Your task to perform on an android device: delete browsing data in the chrome app Image 0: 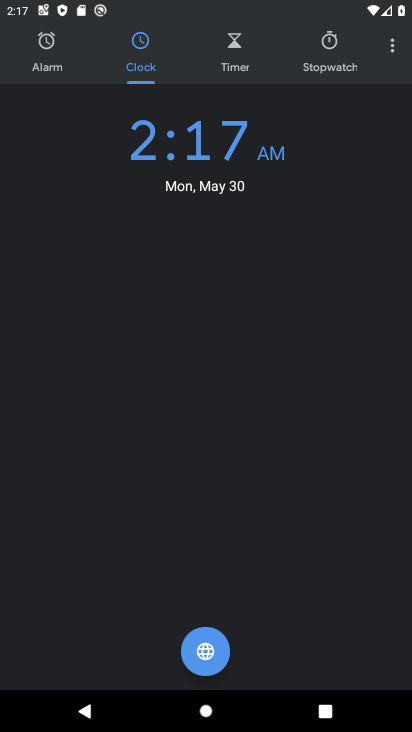
Step 0: press home button
Your task to perform on an android device: delete browsing data in the chrome app Image 1: 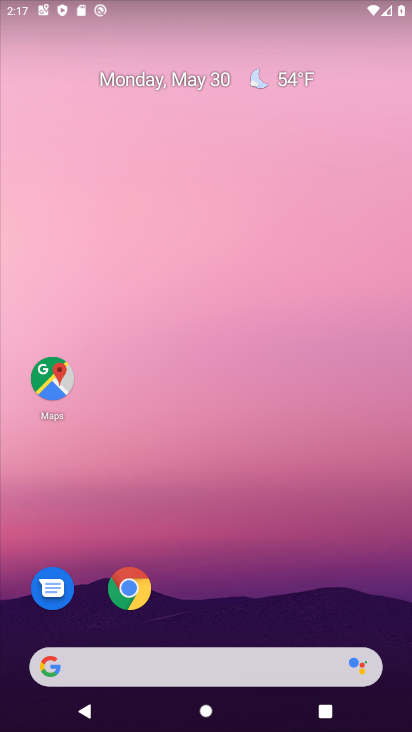
Step 1: click (130, 588)
Your task to perform on an android device: delete browsing data in the chrome app Image 2: 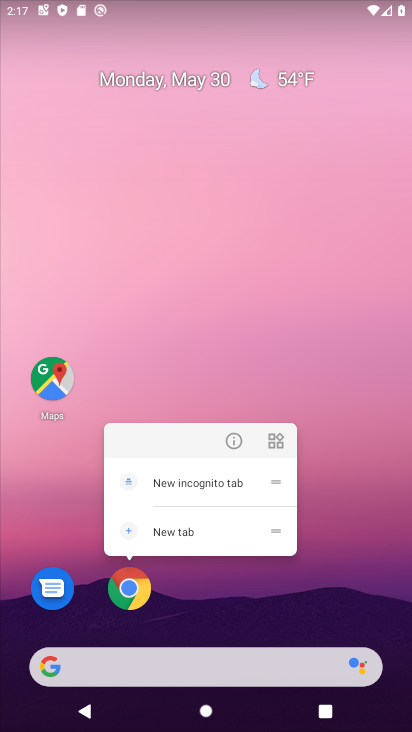
Step 2: click (130, 588)
Your task to perform on an android device: delete browsing data in the chrome app Image 3: 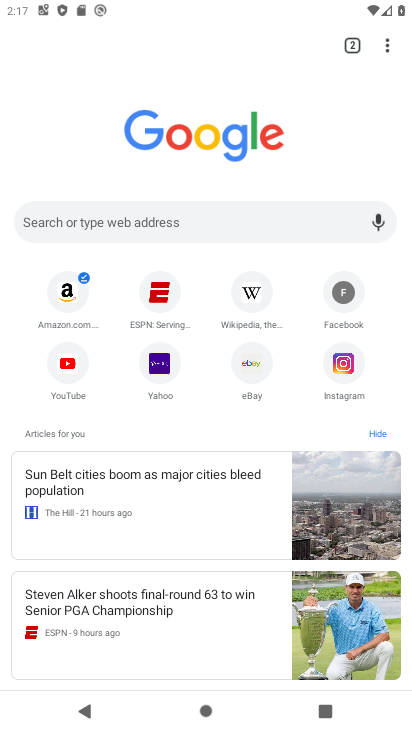
Step 3: click (380, 44)
Your task to perform on an android device: delete browsing data in the chrome app Image 4: 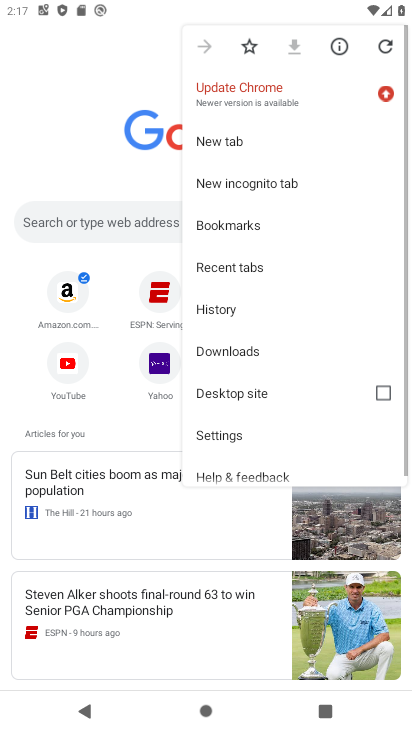
Step 4: drag from (295, 433) to (287, 263)
Your task to perform on an android device: delete browsing data in the chrome app Image 5: 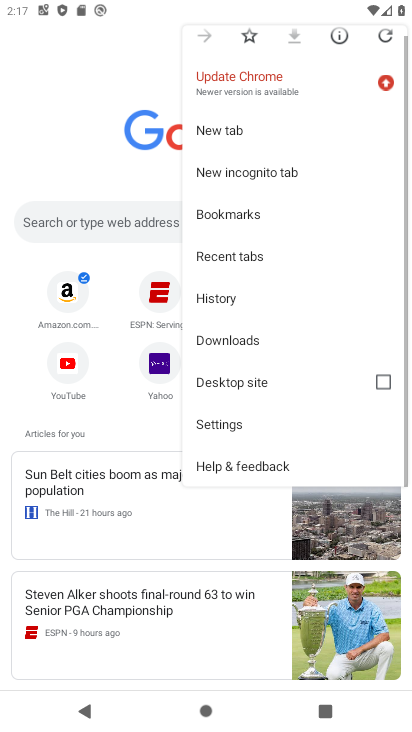
Step 5: click (228, 420)
Your task to perform on an android device: delete browsing data in the chrome app Image 6: 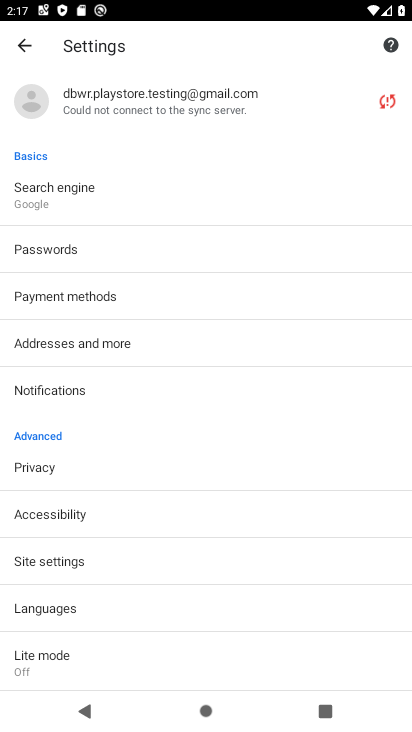
Step 6: click (74, 472)
Your task to perform on an android device: delete browsing data in the chrome app Image 7: 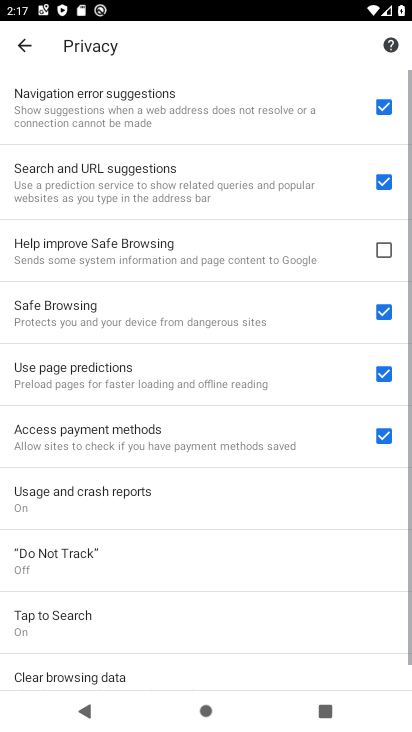
Step 7: drag from (187, 546) to (217, 185)
Your task to perform on an android device: delete browsing data in the chrome app Image 8: 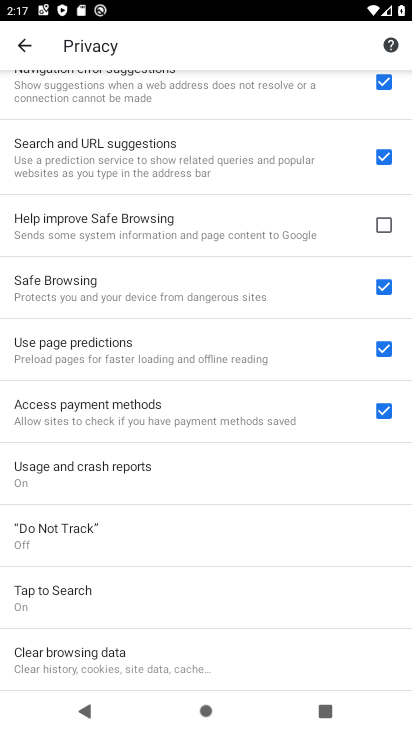
Step 8: click (100, 658)
Your task to perform on an android device: delete browsing data in the chrome app Image 9: 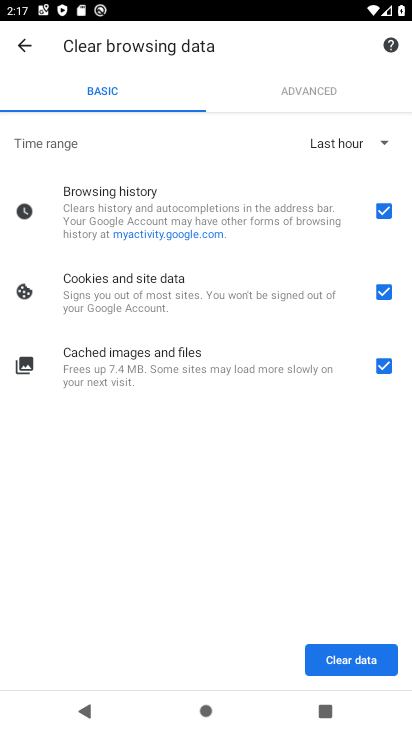
Step 9: click (382, 289)
Your task to perform on an android device: delete browsing data in the chrome app Image 10: 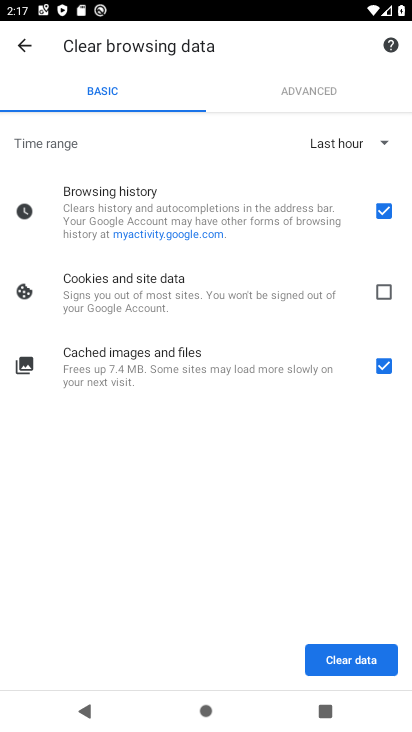
Step 10: click (383, 366)
Your task to perform on an android device: delete browsing data in the chrome app Image 11: 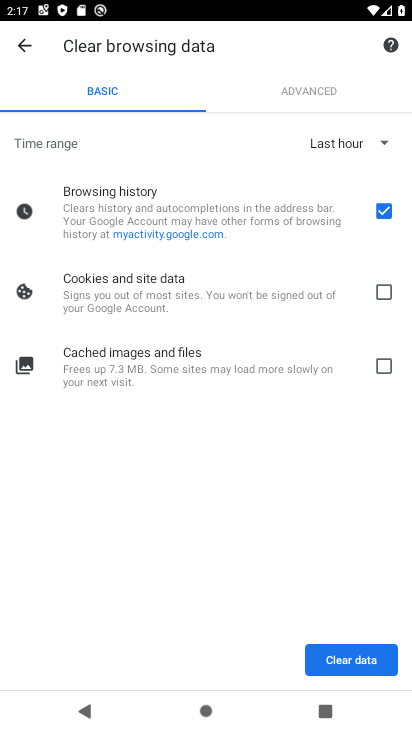
Step 11: click (344, 657)
Your task to perform on an android device: delete browsing data in the chrome app Image 12: 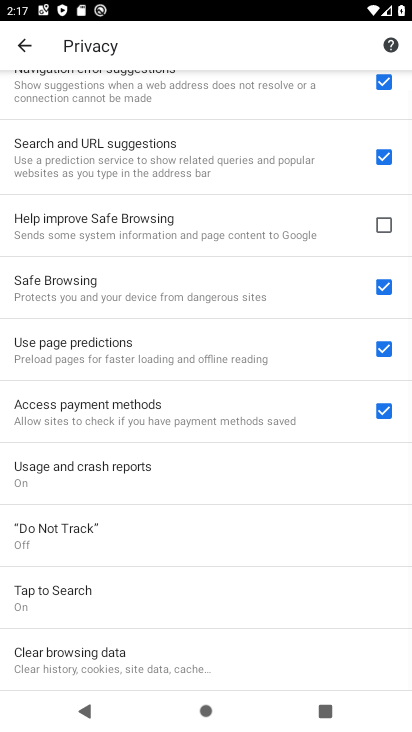
Step 12: task complete